Your task to perform on an android device: Open Yahoo.com Image 0: 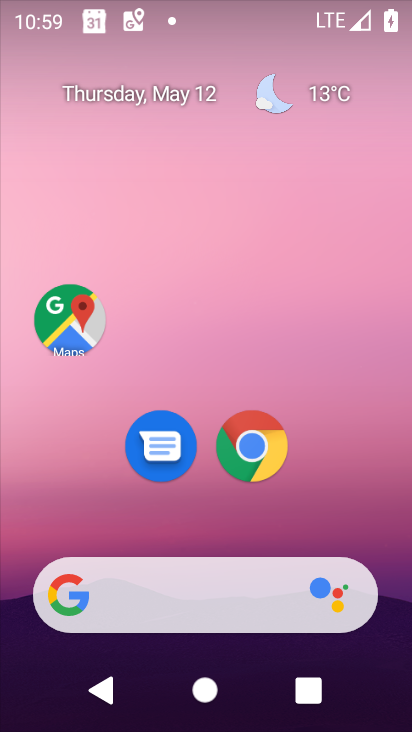
Step 0: drag from (350, 546) to (295, 13)
Your task to perform on an android device: Open Yahoo.com Image 1: 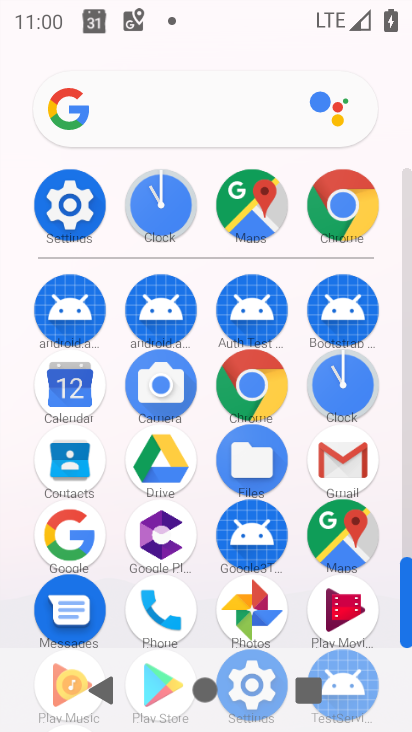
Step 1: click (236, 403)
Your task to perform on an android device: Open Yahoo.com Image 2: 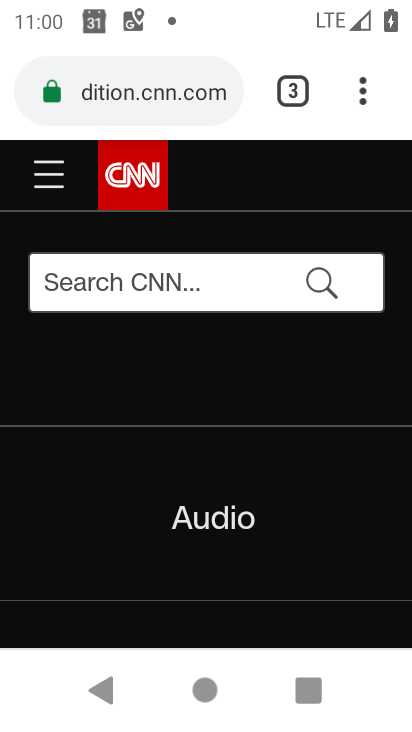
Step 2: click (189, 65)
Your task to perform on an android device: Open Yahoo.com Image 3: 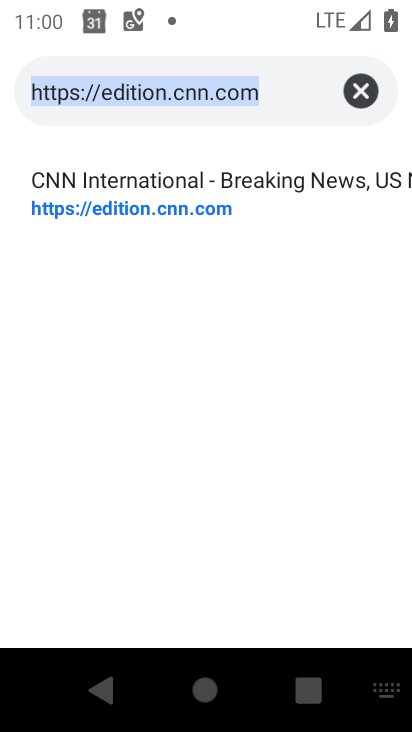
Step 3: click (365, 81)
Your task to perform on an android device: Open Yahoo.com Image 4: 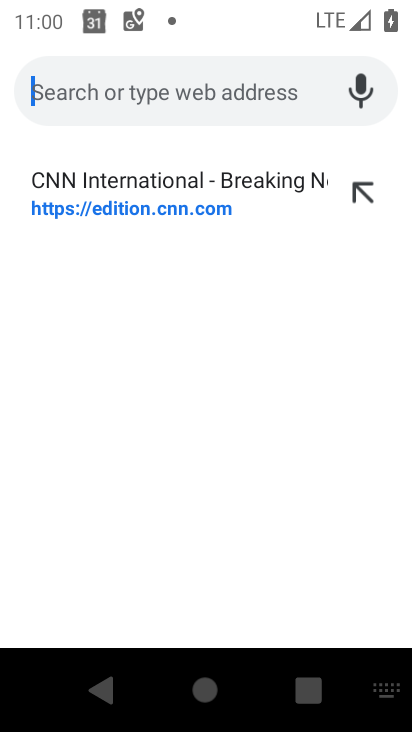
Step 4: type "yahoo.com"
Your task to perform on an android device: Open Yahoo.com Image 5: 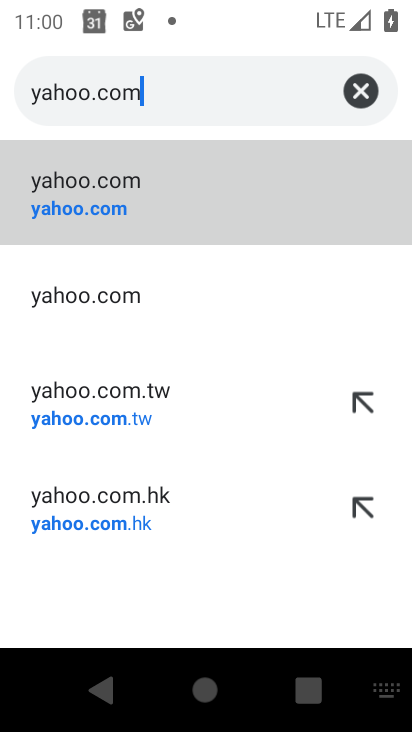
Step 5: click (70, 189)
Your task to perform on an android device: Open Yahoo.com Image 6: 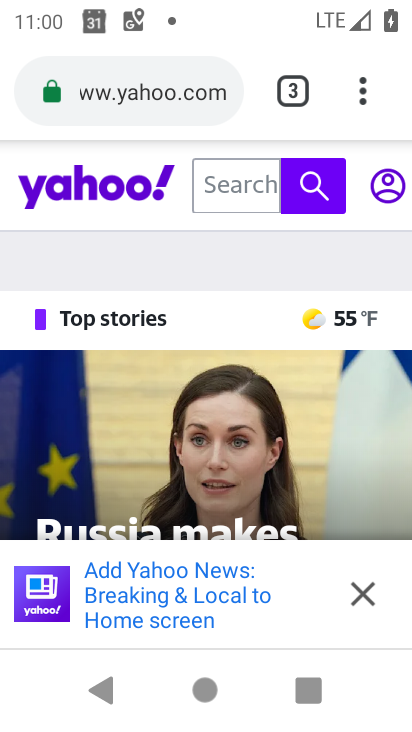
Step 6: task complete